Your task to perform on an android device: turn off smart reply in the gmail app Image 0: 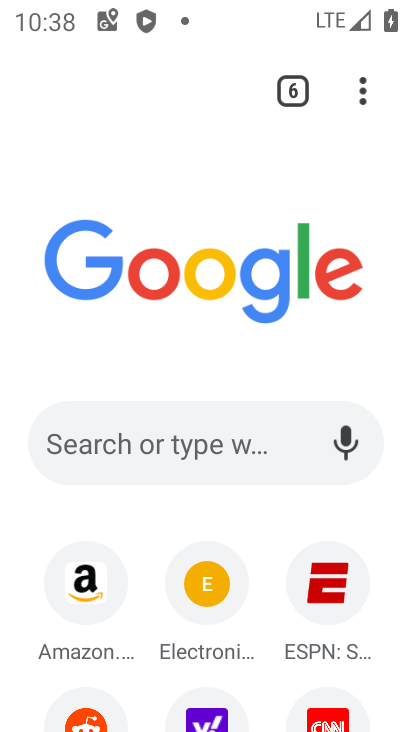
Step 0: press home button
Your task to perform on an android device: turn off smart reply in the gmail app Image 1: 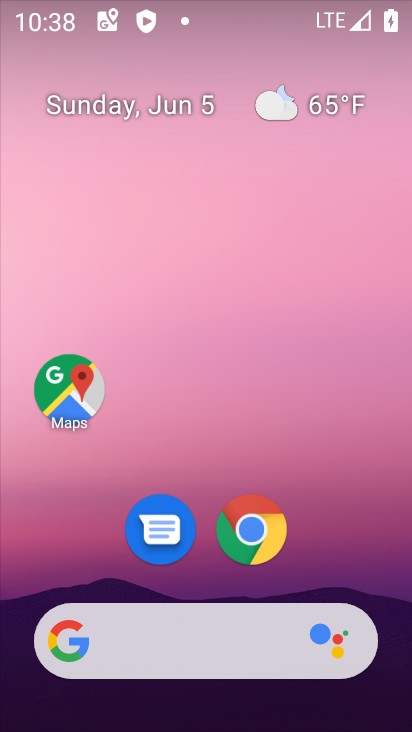
Step 1: drag from (179, 706) to (272, 89)
Your task to perform on an android device: turn off smart reply in the gmail app Image 2: 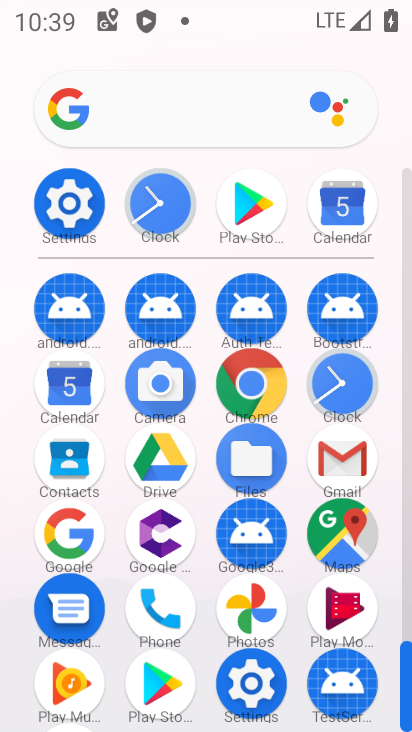
Step 2: click (336, 451)
Your task to perform on an android device: turn off smart reply in the gmail app Image 3: 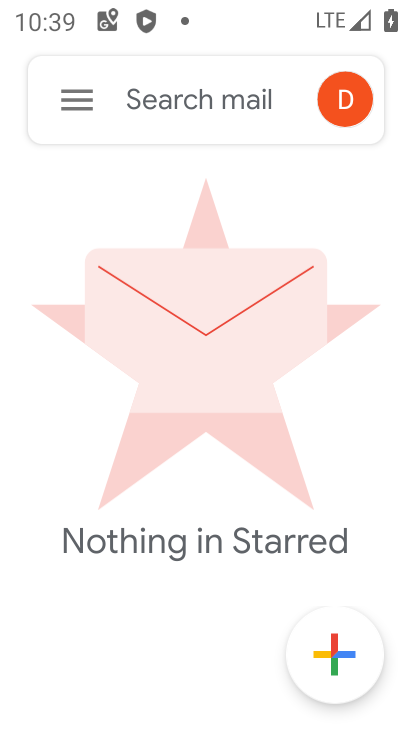
Step 3: click (82, 101)
Your task to perform on an android device: turn off smart reply in the gmail app Image 4: 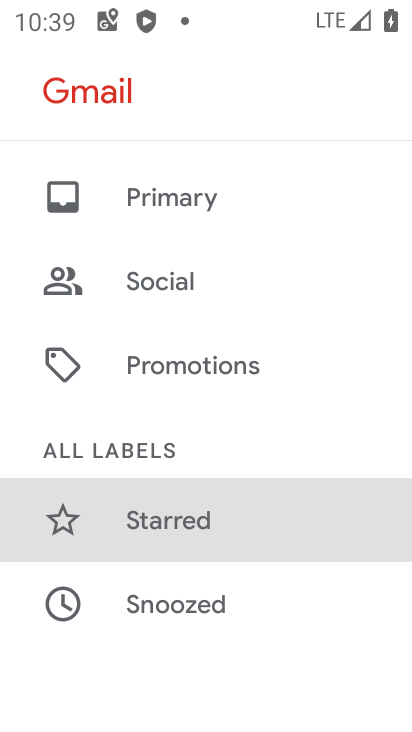
Step 4: drag from (235, 201) to (347, 44)
Your task to perform on an android device: turn off smart reply in the gmail app Image 5: 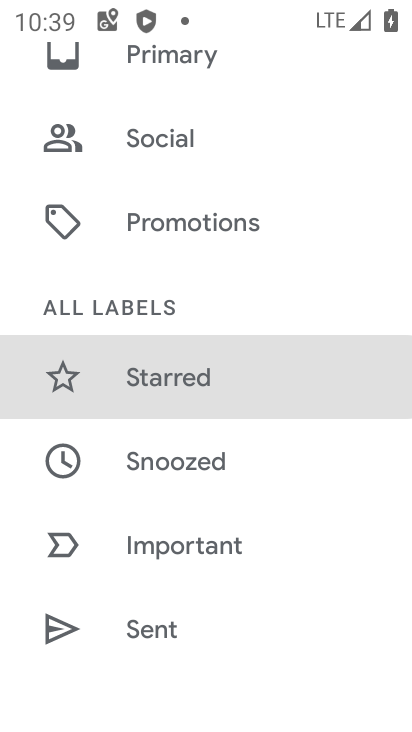
Step 5: drag from (297, 629) to (285, 6)
Your task to perform on an android device: turn off smart reply in the gmail app Image 6: 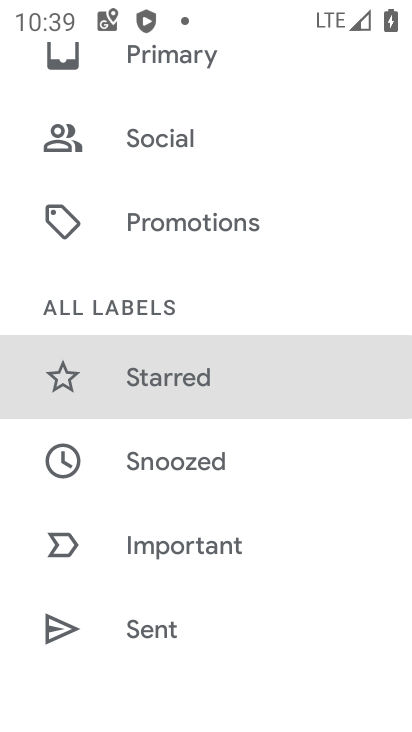
Step 6: drag from (209, 622) to (236, 8)
Your task to perform on an android device: turn off smart reply in the gmail app Image 7: 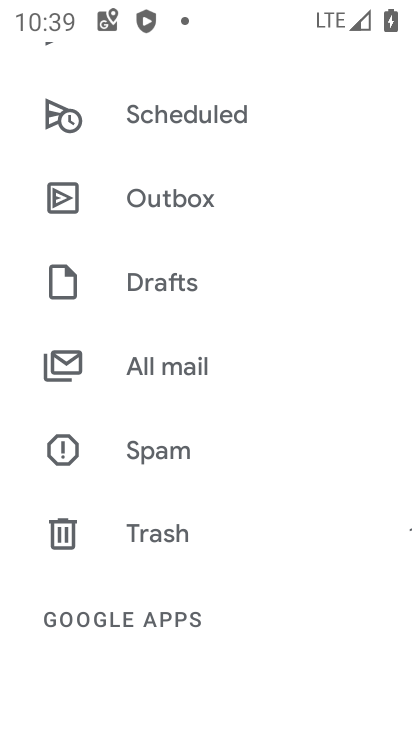
Step 7: drag from (277, 267) to (280, 10)
Your task to perform on an android device: turn off smart reply in the gmail app Image 8: 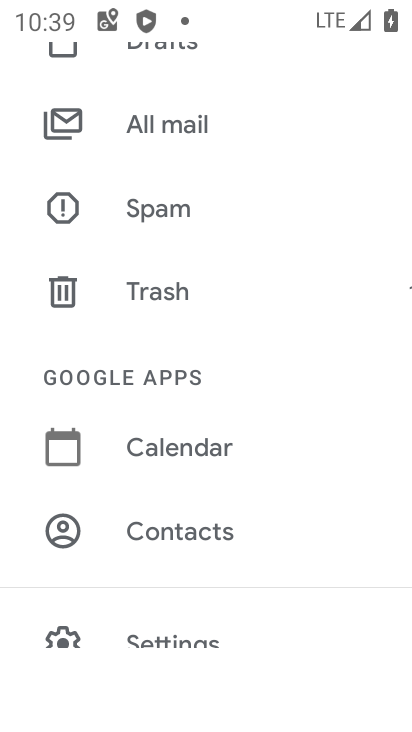
Step 8: click (236, 650)
Your task to perform on an android device: turn off smart reply in the gmail app Image 9: 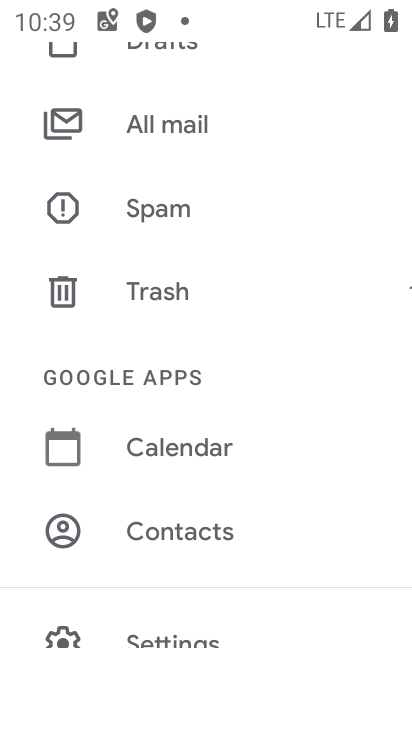
Step 9: click (240, 639)
Your task to perform on an android device: turn off smart reply in the gmail app Image 10: 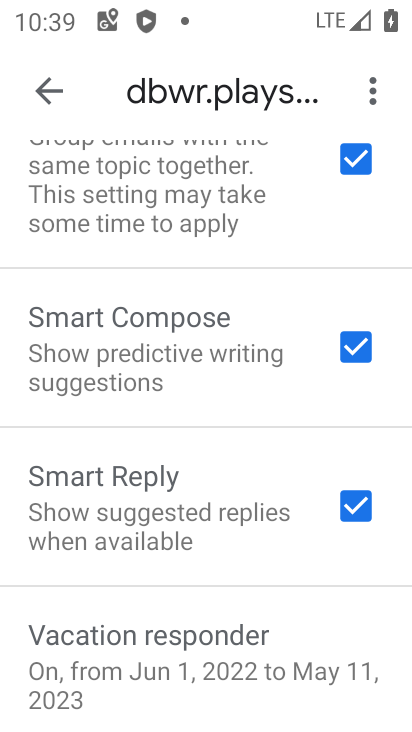
Step 10: click (344, 501)
Your task to perform on an android device: turn off smart reply in the gmail app Image 11: 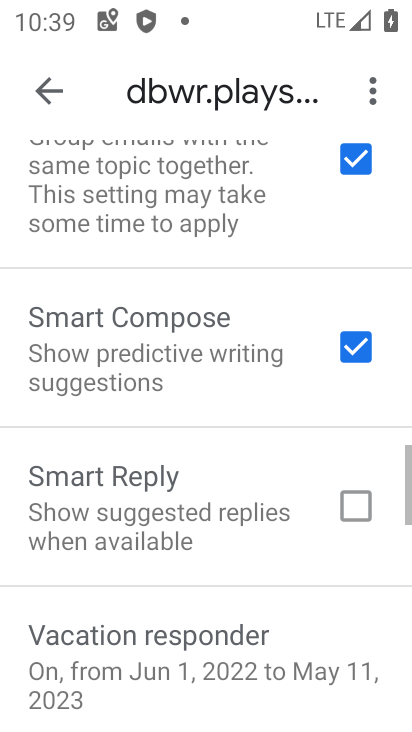
Step 11: task complete